Your task to perform on an android device: Open network settings Image 0: 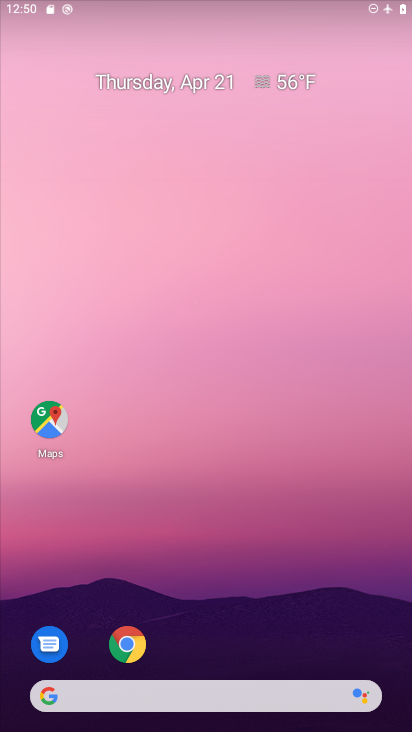
Step 0: drag from (192, 668) to (303, 102)
Your task to perform on an android device: Open network settings Image 1: 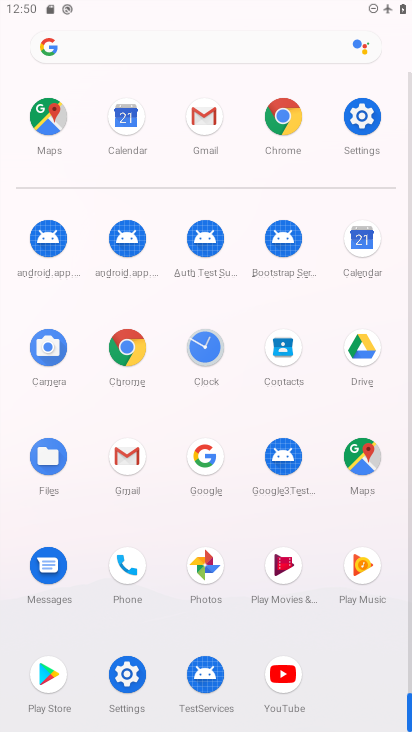
Step 1: click (365, 111)
Your task to perform on an android device: Open network settings Image 2: 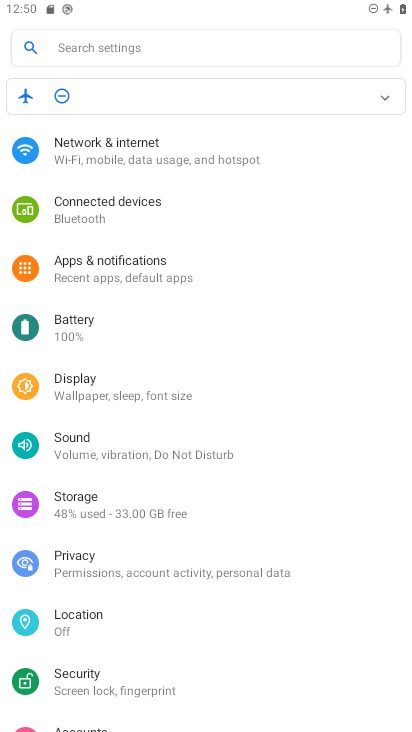
Step 2: click (132, 161)
Your task to perform on an android device: Open network settings Image 3: 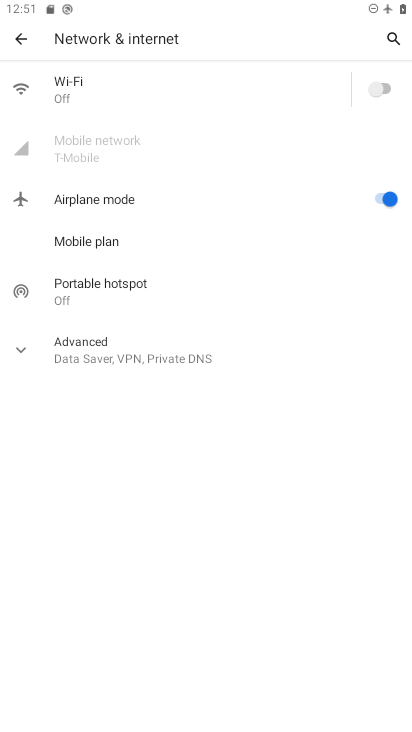
Step 3: click (107, 143)
Your task to perform on an android device: Open network settings Image 4: 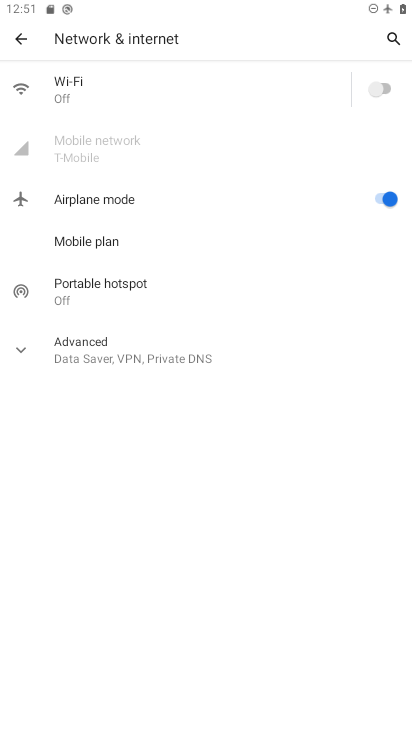
Step 4: task complete